Your task to perform on an android device: Is it going to rain today? Image 0: 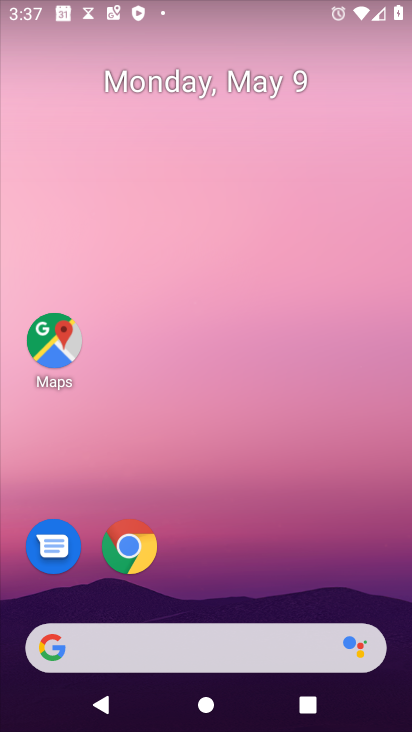
Step 0: drag from (282, 550) to (307, 110)
Your task to perform on an android device: Is it going to rain today? Image 1: 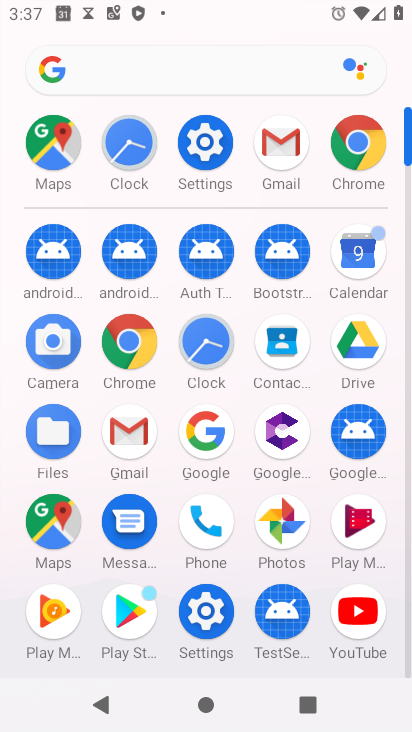
Step 1: press home button
Your task to perform on an android device: Is it going to rain today? Image 2: 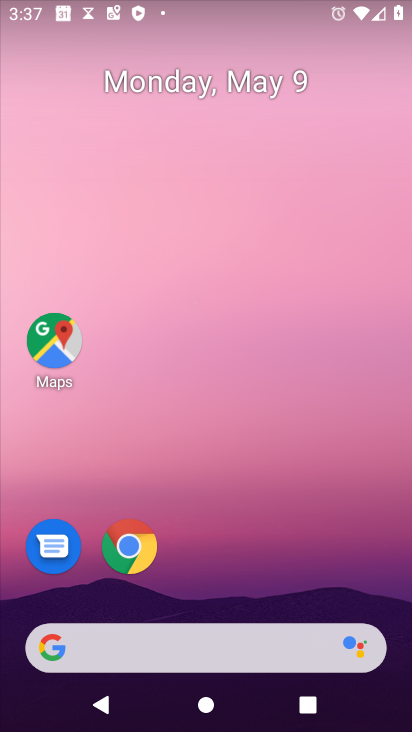
Step 2: click (41, 652)
Your task to perform on an android device: Is it going to rain today? Image 3: 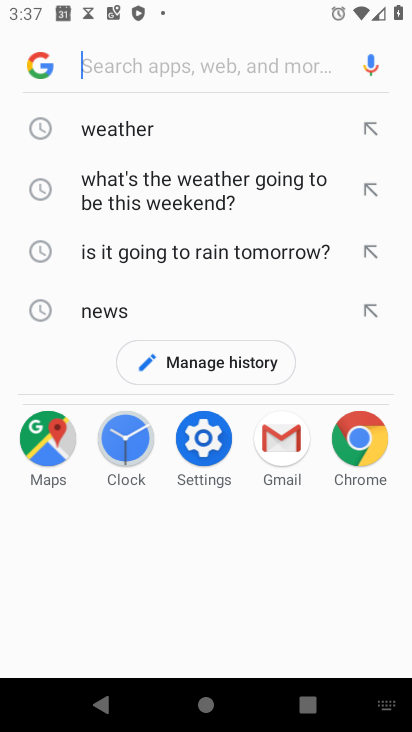
Step 3: click (39, 68)
Your task to perform on an android device: Is it going to rain today? Image 4: 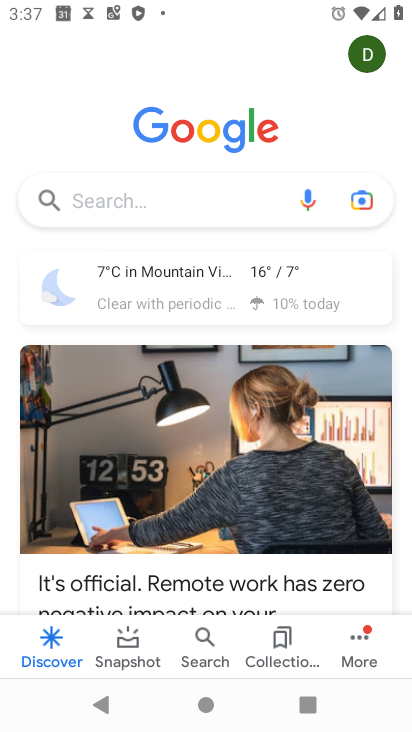
Step 4: click (151, 301)
Your task to perform on an android device: Is it going to rain today? Image 5: 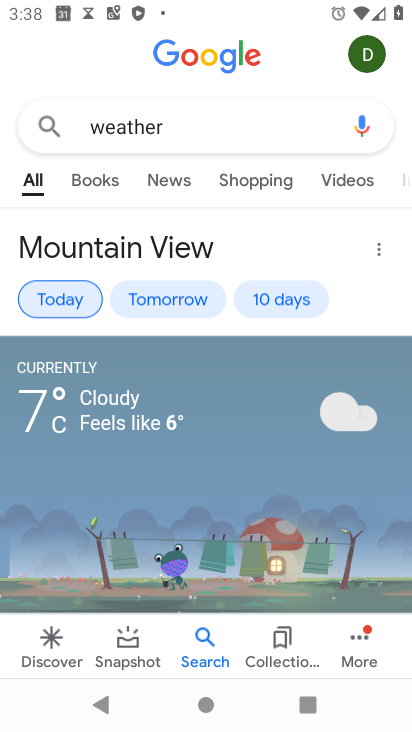
Step 5: task complete